Your task to perform on an android device: change the clock style Image 0: 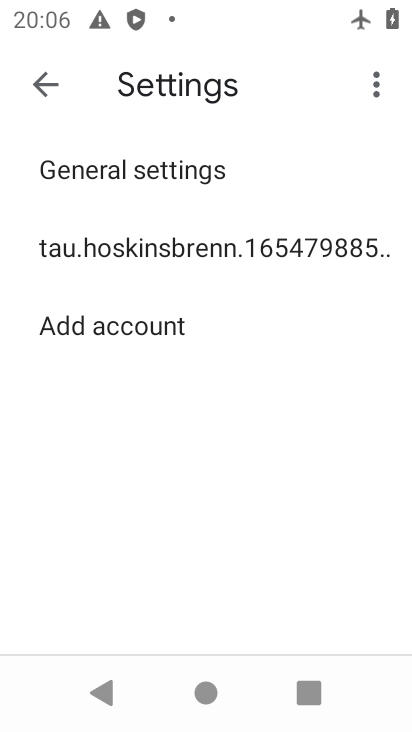
Step 0: press home button
Your task to perform on an android device: change the clock style Image 1: 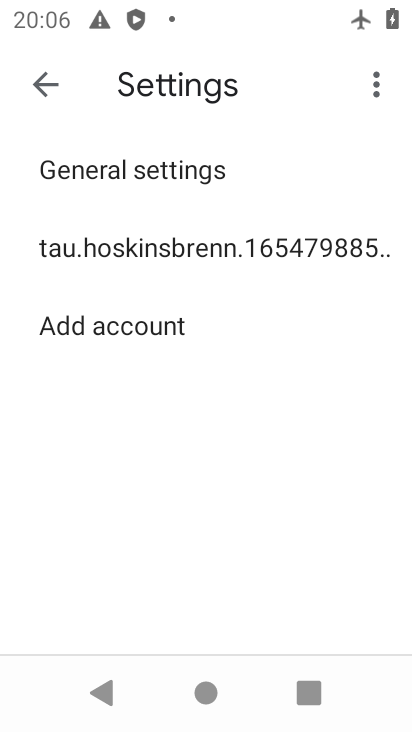
Step 1: press home button
Your task to perform on an android device: change the clock style Image 2: 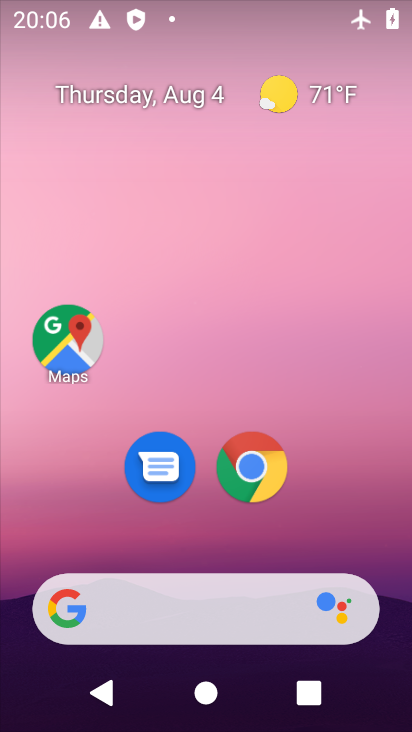
Step 2: drag from (243, 584) to (327, 118)
Your task to perform on an android device: change the clock style Image 3: 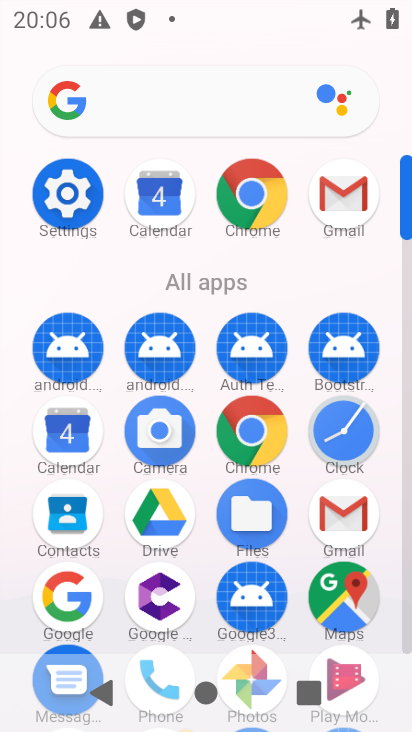
Step 3: click (364, 418)
Your task to perform on an android device: change the clock style Image 4: 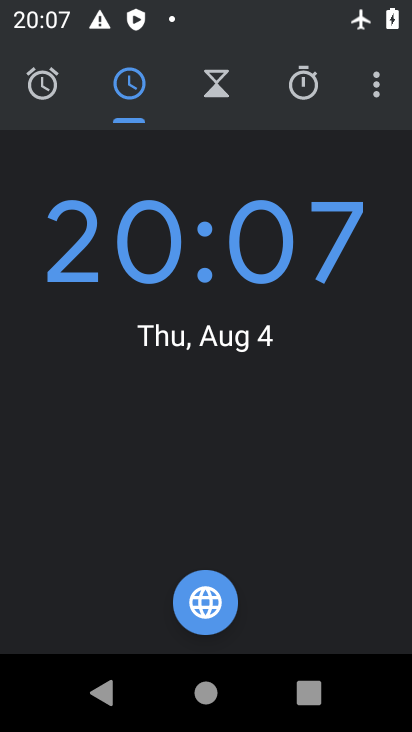
Step 4: click (374, 94)
Your task to perform on an android device: change the clock style Image 5: 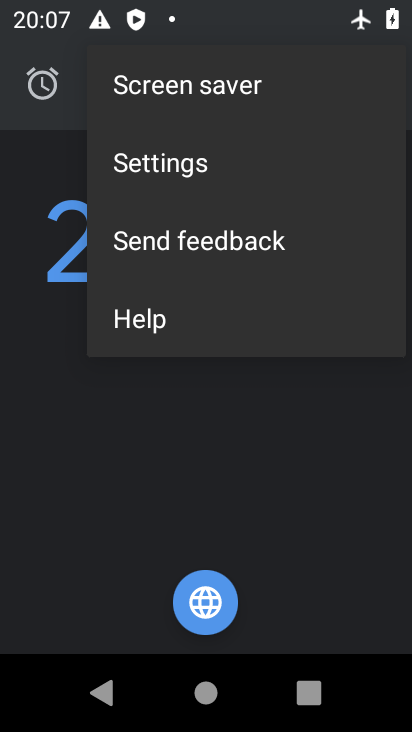
Step 5: click (179, 165)
Your task to perform on an android device: change the clock style Image 6: 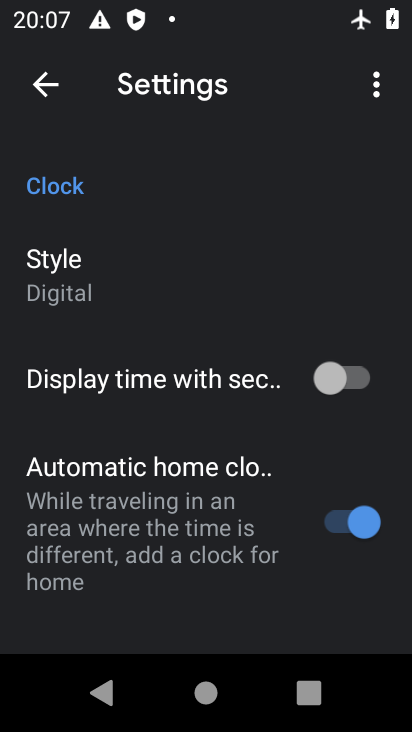
Step 6: click (89, 272)
Your task to perform on an android device: change the clock style Image 7: 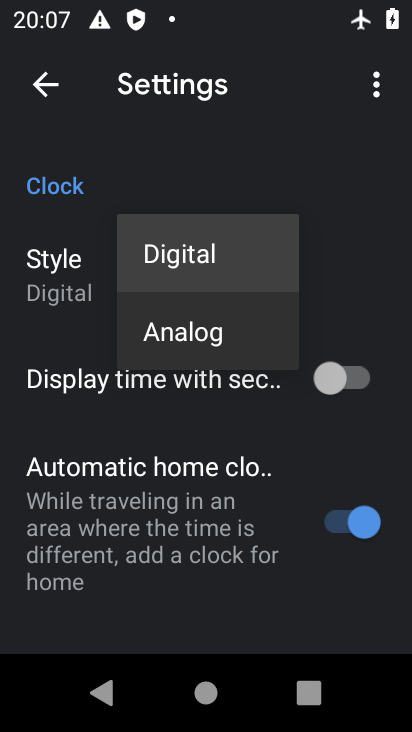
Step 7: click (183, 332)
Your task to perform on an android device: change the clock style Image 8: 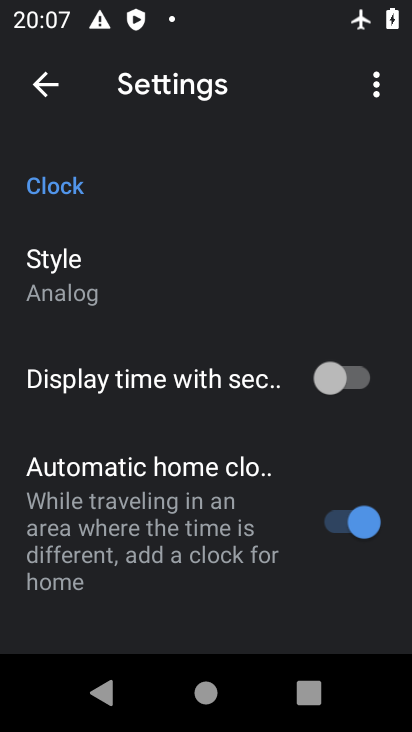
Step 8: task complete